Your task to perform on an android device: manage bookmarks in the chrome app Image 0: 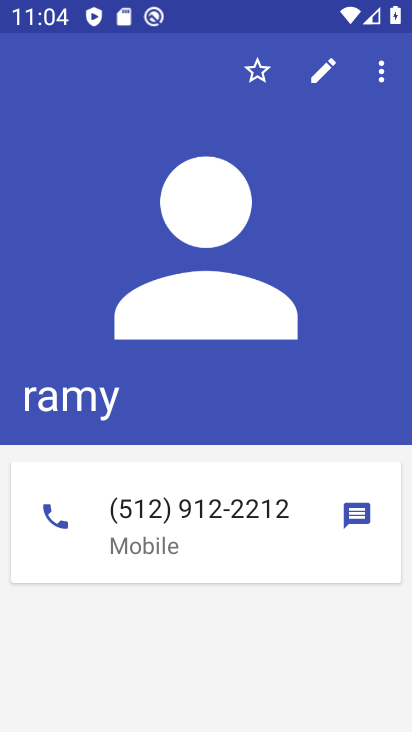
Step 0: press home button
Your task to perform on an android device: manage bookmarks in the chrome app Image 1: 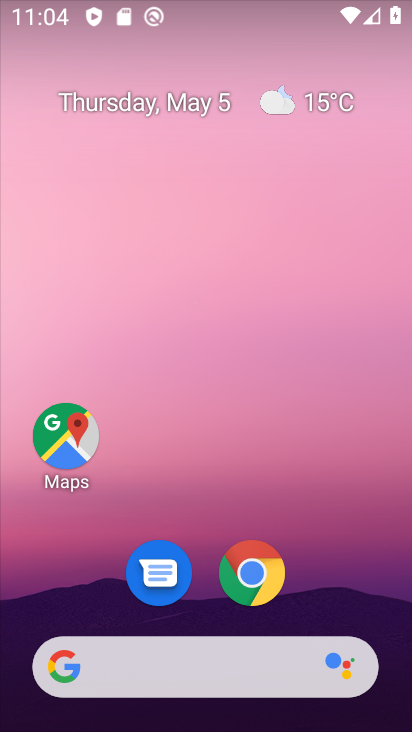
Step 1: click (244, 569)
Your task to perform on an android device: manage bookmarks in the chrome app Image 2: 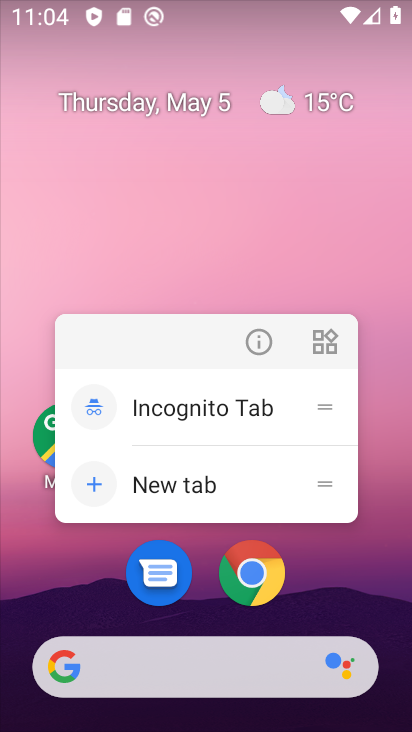
Step 2: click (262, 576)
Your task to perform on an android device: manage bookmarks in the chrome app Image 3: 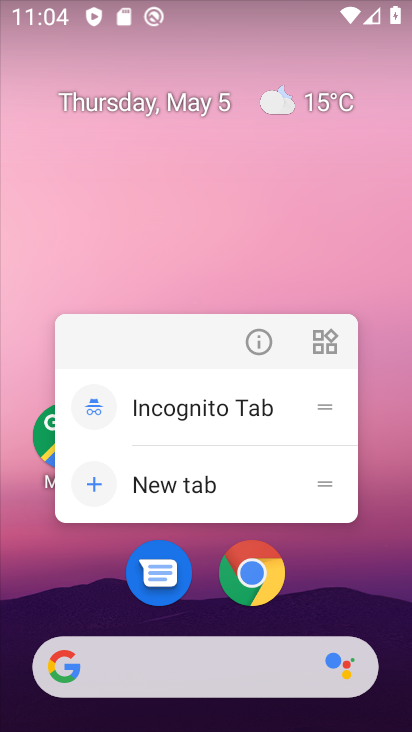
Step 3: click (273, 588)
Your task to perform on an android device: manage bookmarks in the chrome app Image 4: 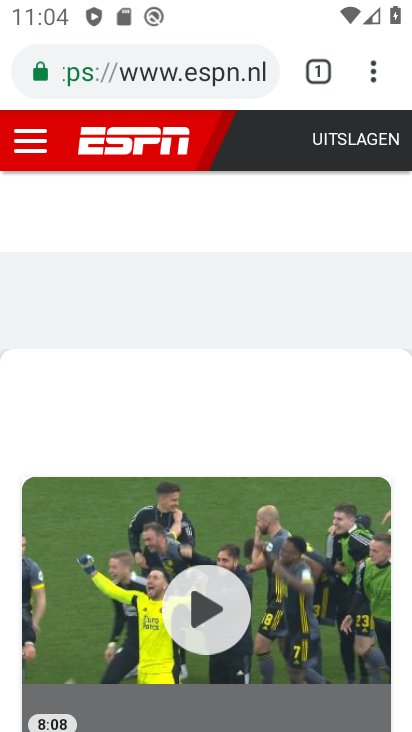
Step 4: click (384, 82)
Your task to perform on an android device: manage bookmarks in the chrome app Image 5: 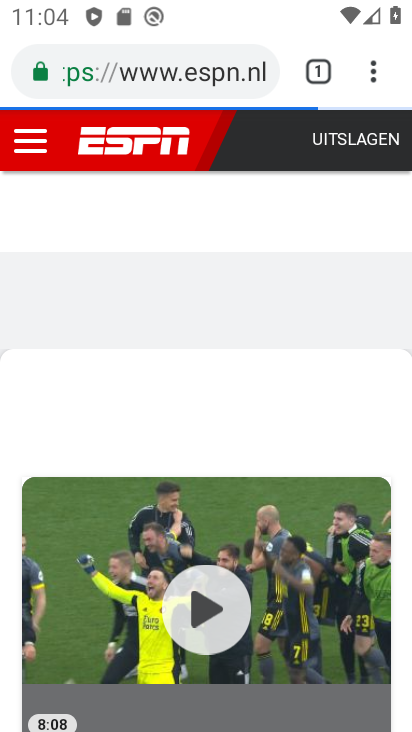
Step 5: drag from (383, 81) to (313, 302)
Your task to perform on an android device: manage bookmarks in the chrome app Image 6: 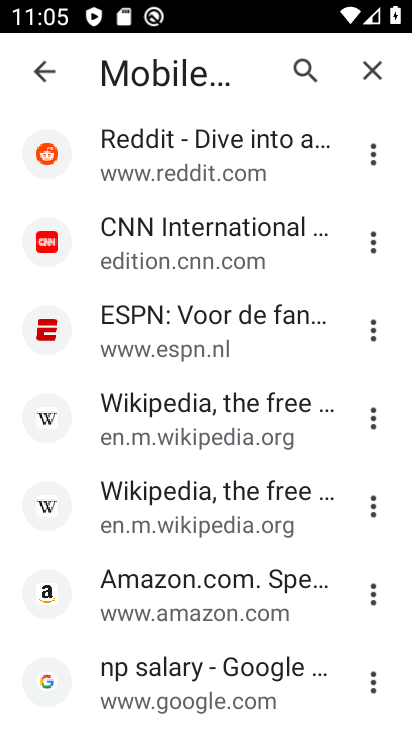
Step 6: drag from (211, 169) to (207, 238)
Your task to perform on an android device: manage bookmarks in the chrome app Image 7: 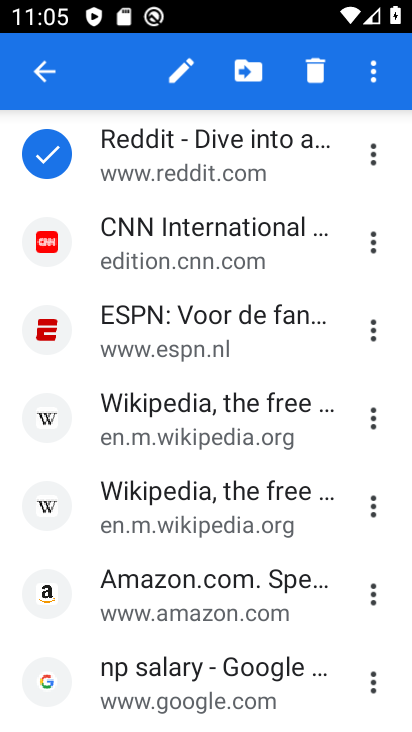
Step 7: click (207, 238)
Your task to perform on an android device: manage bookmarks in the chrome app Image 8: 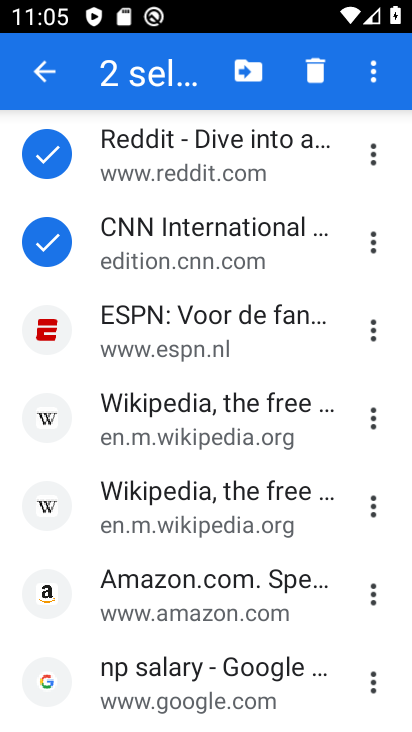
Step 8: click (207, 324)
Your task to perform on an android device: manage bookmarks in the chrome app Image 9: 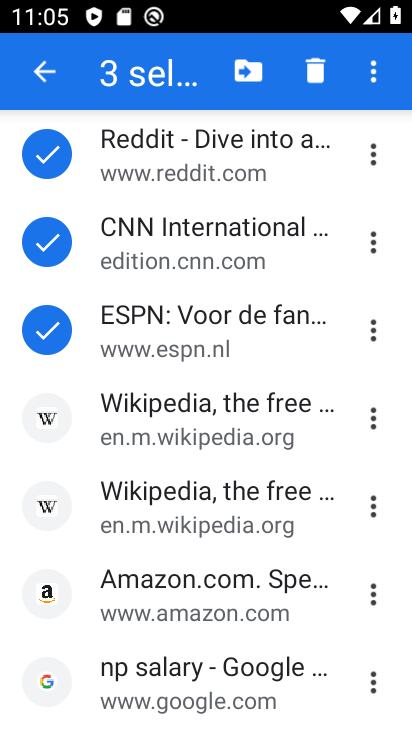
Step 9: click (195, 370)
Your task to perform on an android device: manage bookmarks in the chrome app Image 10: 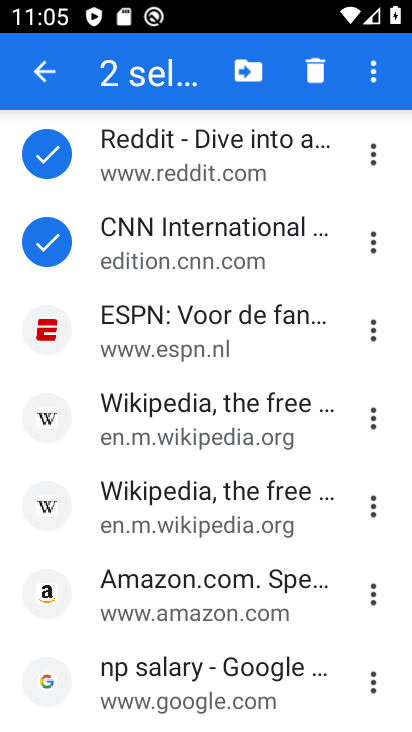
Step 10: click (195, 366)
Your task to perform on an android device: manage bookmarks in the chrome app Image 11: 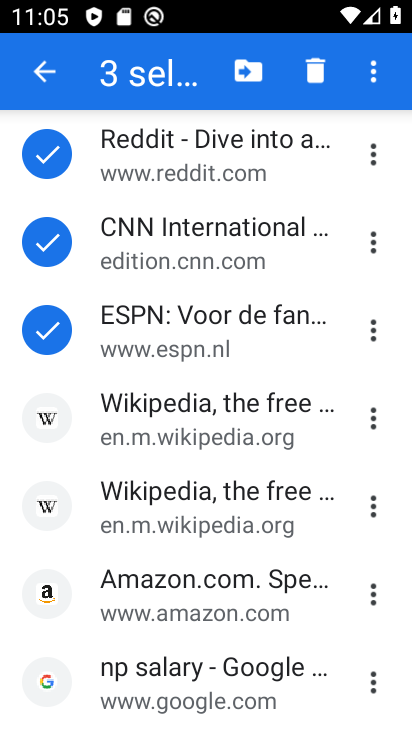
Step 11: click (192, 438)
Your task to perform on an android device: manage bookmarks in the chrome app Image 12: 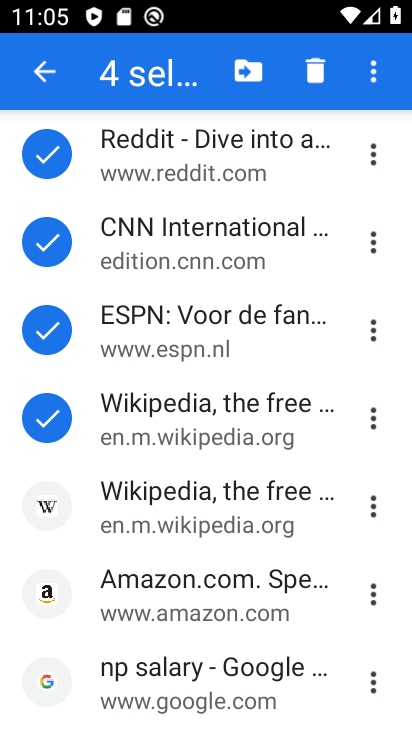
Step 12: click (187, 485)
Your task to perform on an android device: manage bookmarks in the chrome app Image 13: 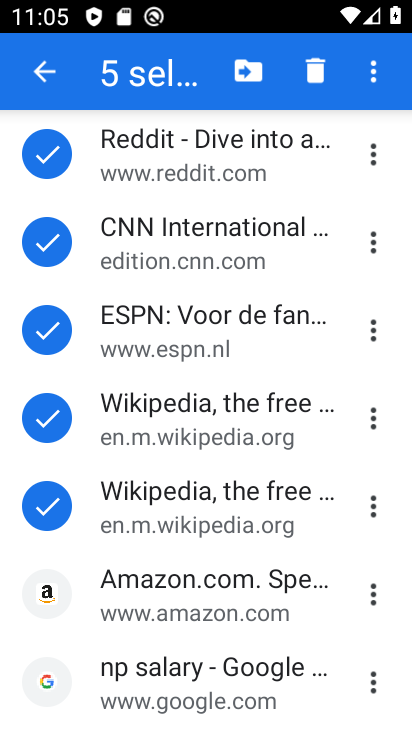
Step 13: click (176, 587)
Your task to perform on an android device: manage bookmarks in the chrome app Image 14: 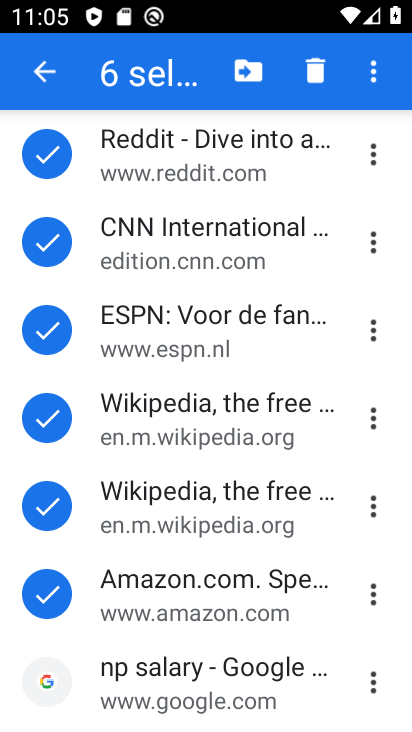
Step 14: click (155, 693)
Your task to perform on an android device: manage bookmarks in the chrome app Image 15: 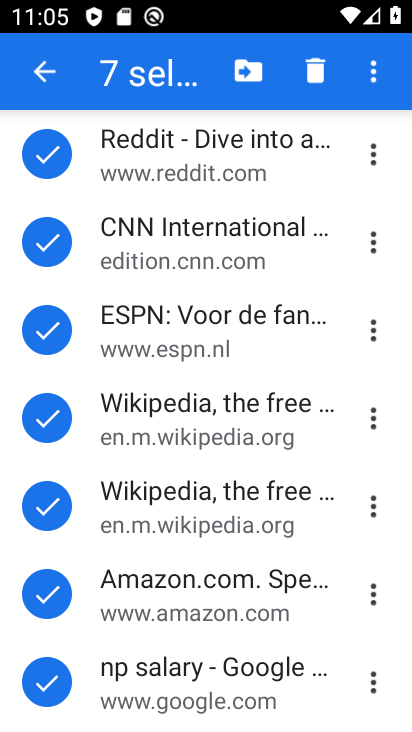
Step 15: drag from (155, 693) to (298, 131)
Your task to perform on an android device: manage bookmarks in the chrome app Image 16: 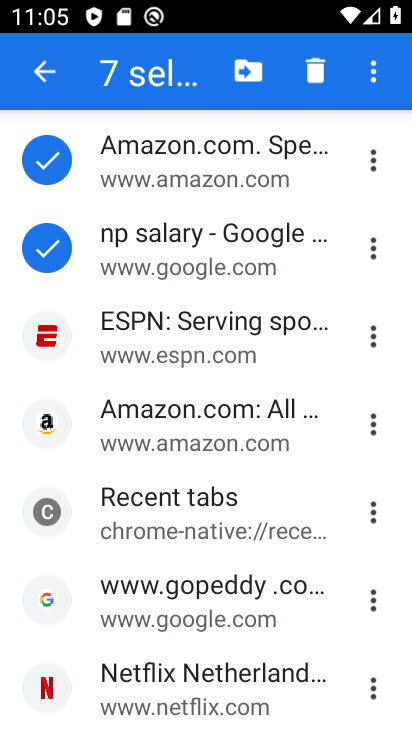
Step 16: click (155, 332)
Your task to perform on an android device: manage bookmarks in the chrome app Image 17: 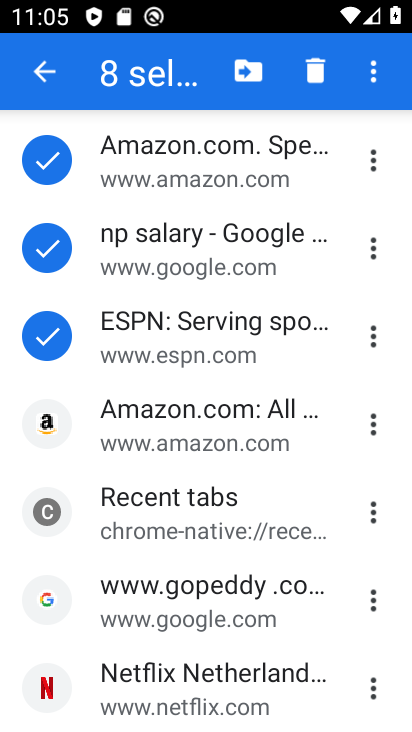
Step 17: click (158, 446)
Your task to perform on an android device: manage bookmarks in the chrome app Image 18: 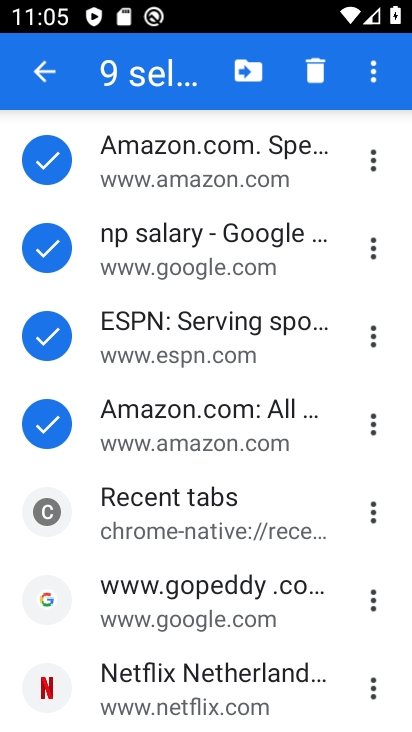
Step 18: click (155, 510)
Your task to perform on an android device: manage bookmarks in the chrome app Image 19: 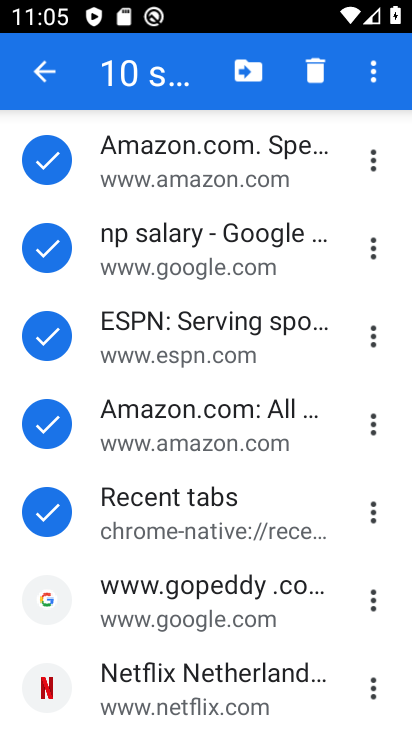
Step 19: click (155, 592)
Your task to perform on an android device: manage bookmarks in the chrome app Image 20: 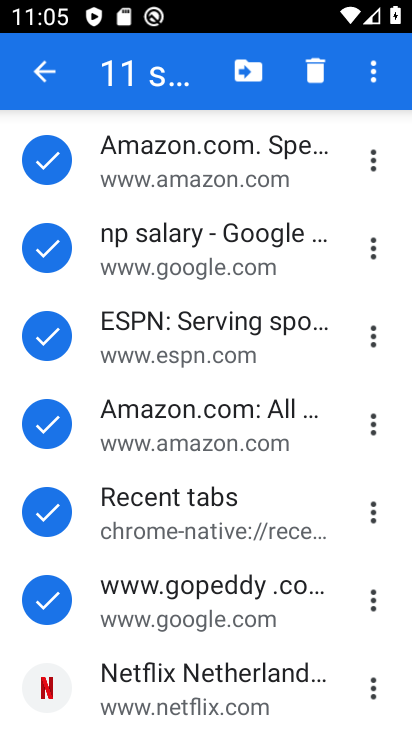
Step 20: click (119, 662)
Your task to perform on an android device: manage bookmarks in the chrome app Image 21: 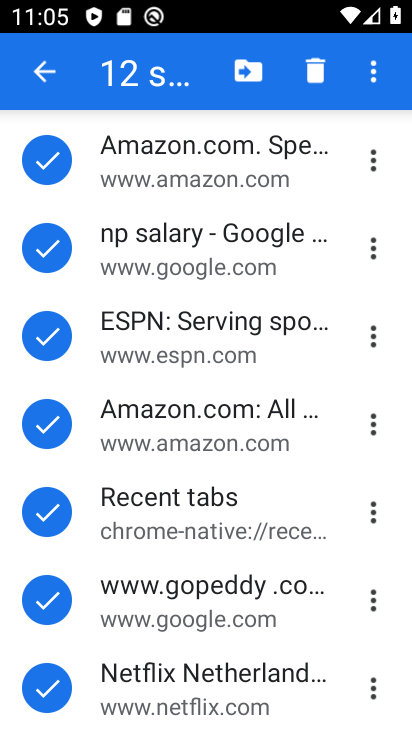
Step 21: drag from (170, 656) to (272, 126)
Your task to perform on an android device: manage bookmarks in the chrome app Image 22: 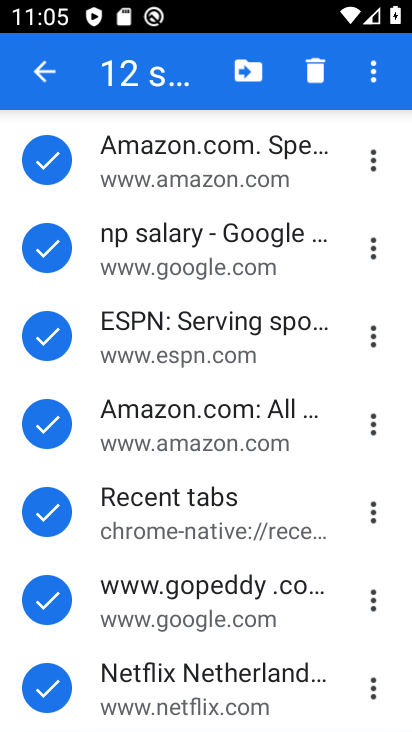
Step 22: click (239, 69)
Your task to perform on an android device: manage bookmarks in the chrome app Image 23: 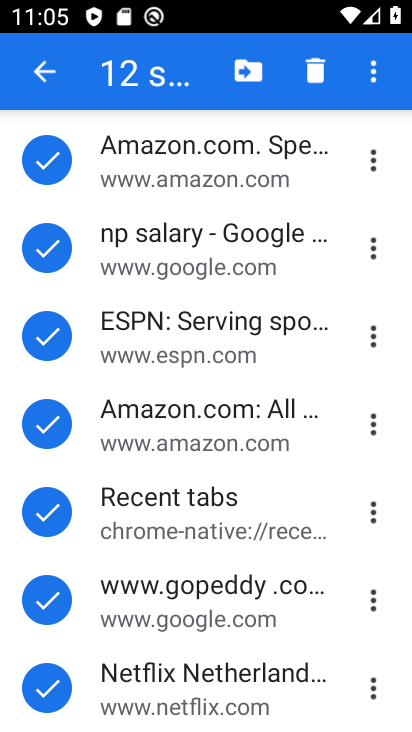
Step 23: click (245, 71)
Your task to perform on an android device: manage bookmarks in the chrome app Image 24: 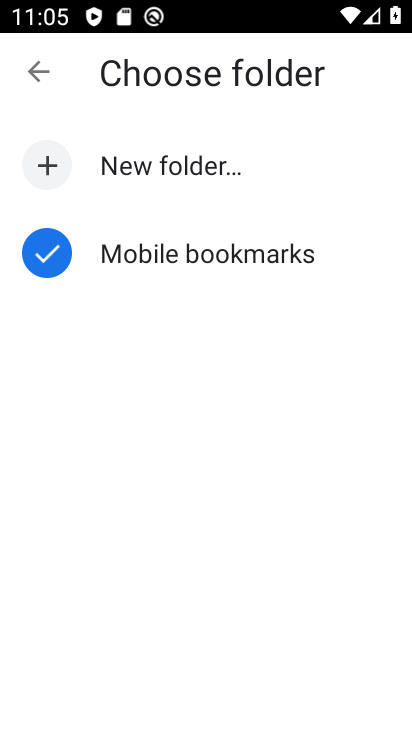
Step 24: click (224, 184)
Your task to perform on an android device: manage bookmarks in the chrome app Image 25: 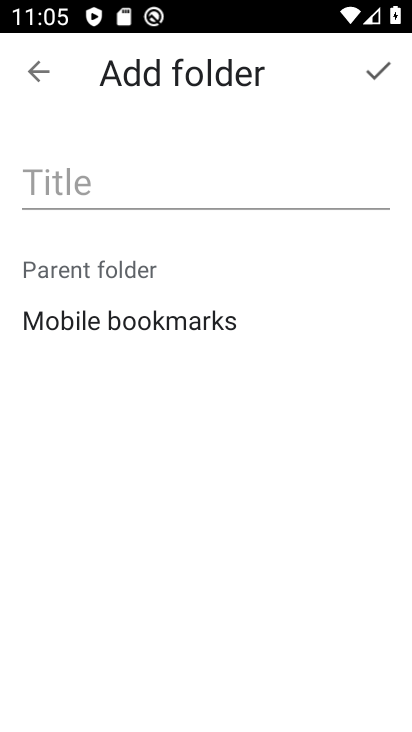
Step 25: click (91, 181)
Your task to perform on an android device: manage bookmarks in the chrome app Image 26: 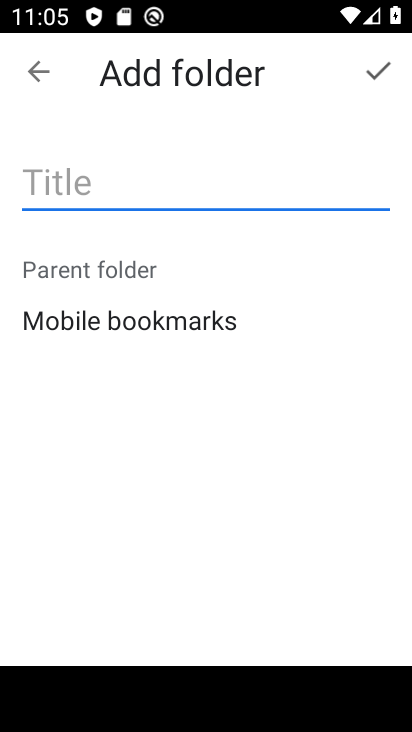
Step 26: type "YOOOOOOOOOO"
Your task to perform on an android device: manage bookmarks in the chrome app Image 27: 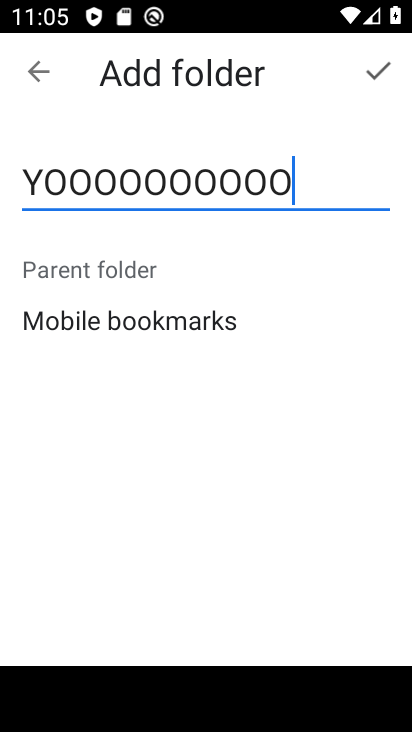
Step 27: click (384, 70)
Your task to perform on an android device: manage bookmarks in the chrome app Image 28: 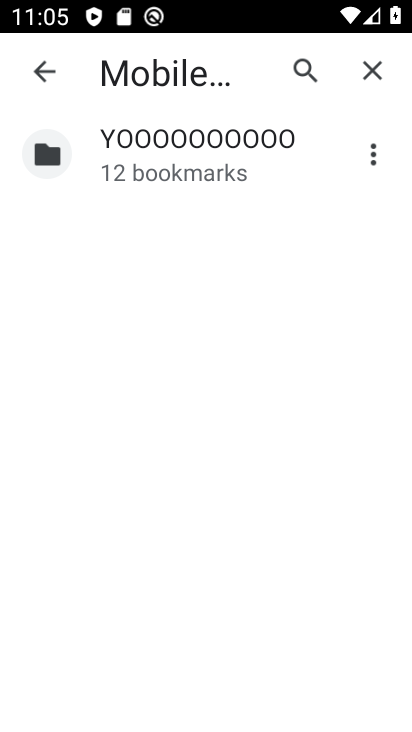
Step 28: task complete